Your task to perform on an android device: install app "Facebook Messenger" Image 0: 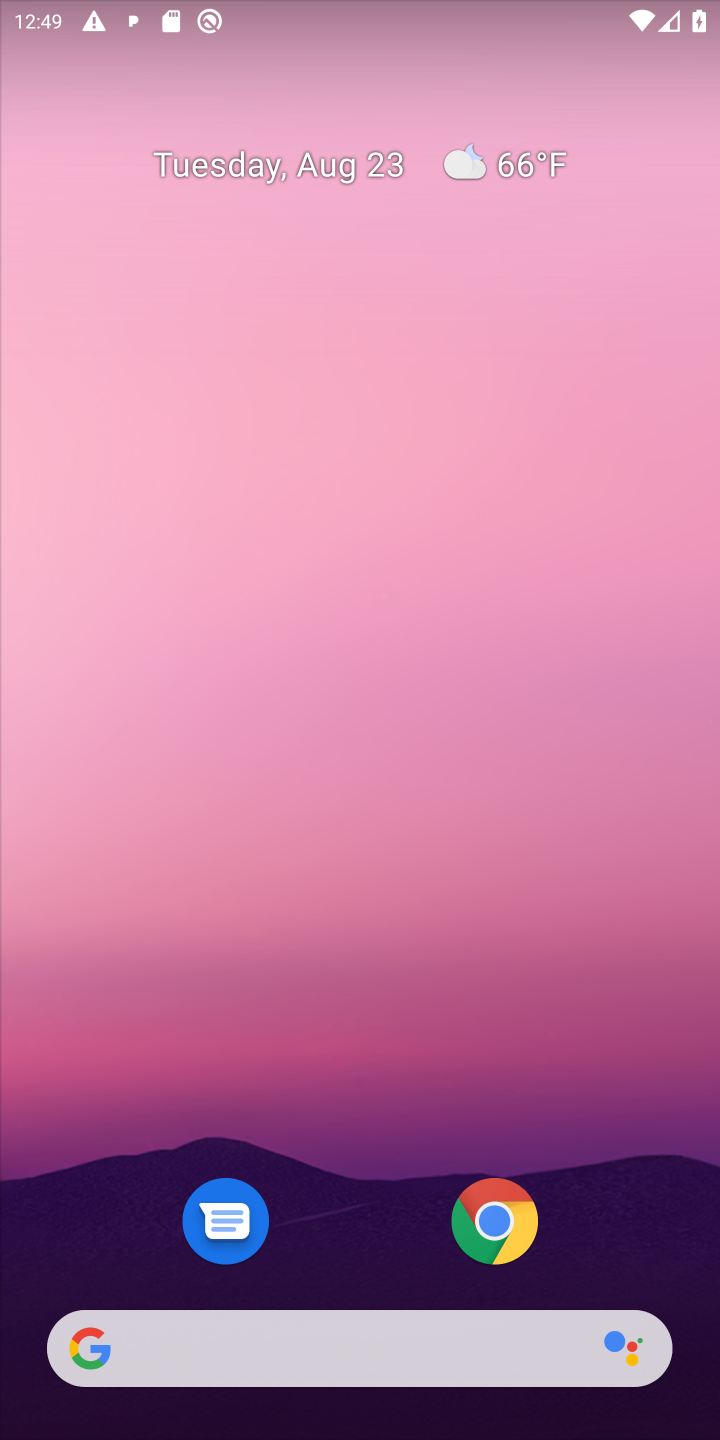
Step 0: drag from (409, 838) to (506, 36)
Your task to perform on an android device: install app "Facebook Messenger" Image 1: 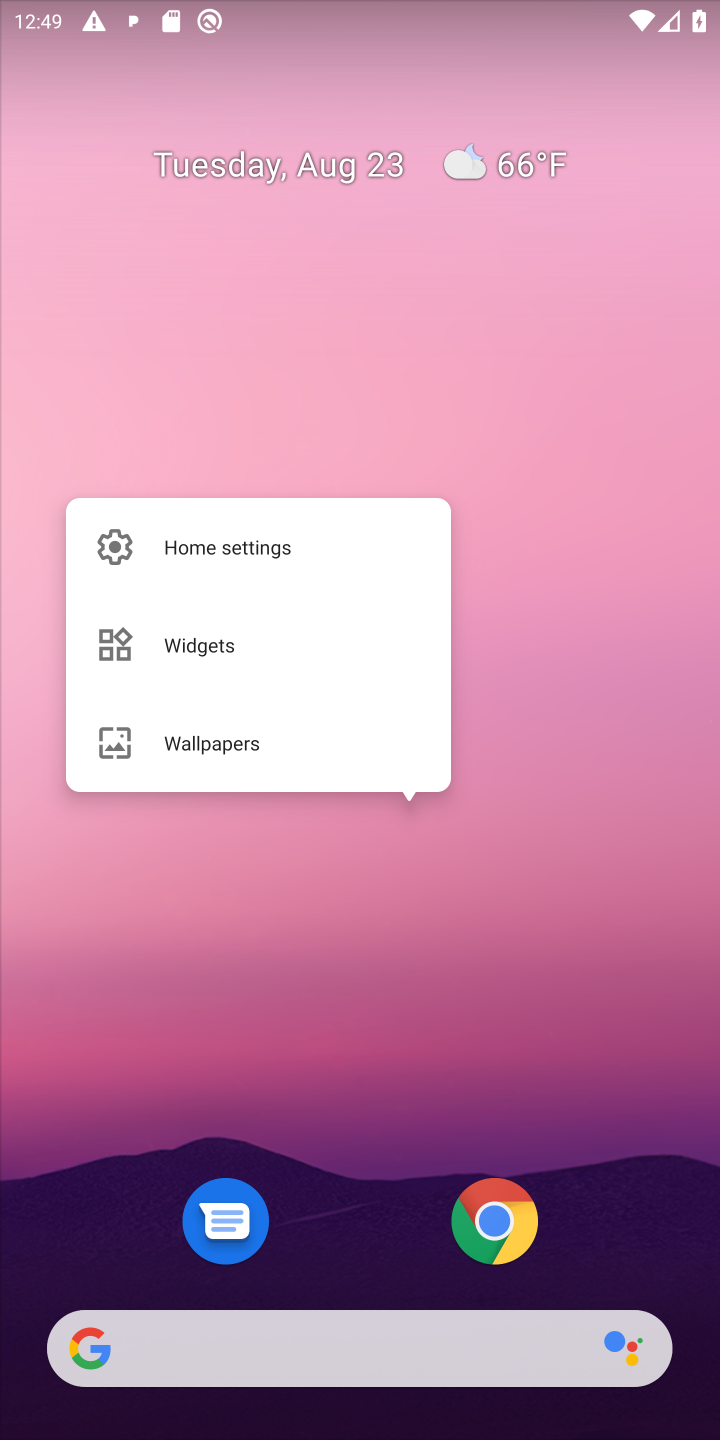
Step 1: click (528, 980)
Your task to perform on an android device: install app "Facebook Messenger" Image 2: 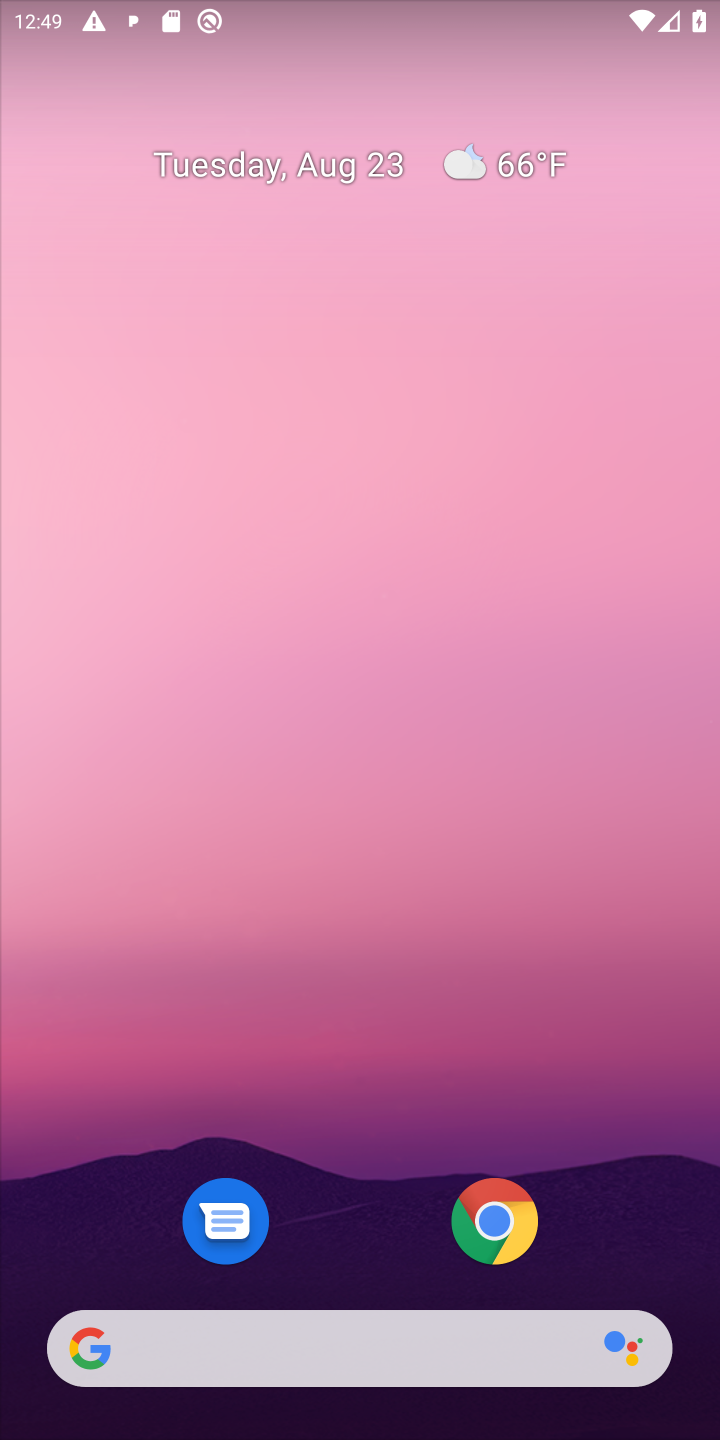
Step 2: drag from (393, 1136) to (426, 206)
Your task to perform on an android device: install app "Facebook Messenger" Image 3: 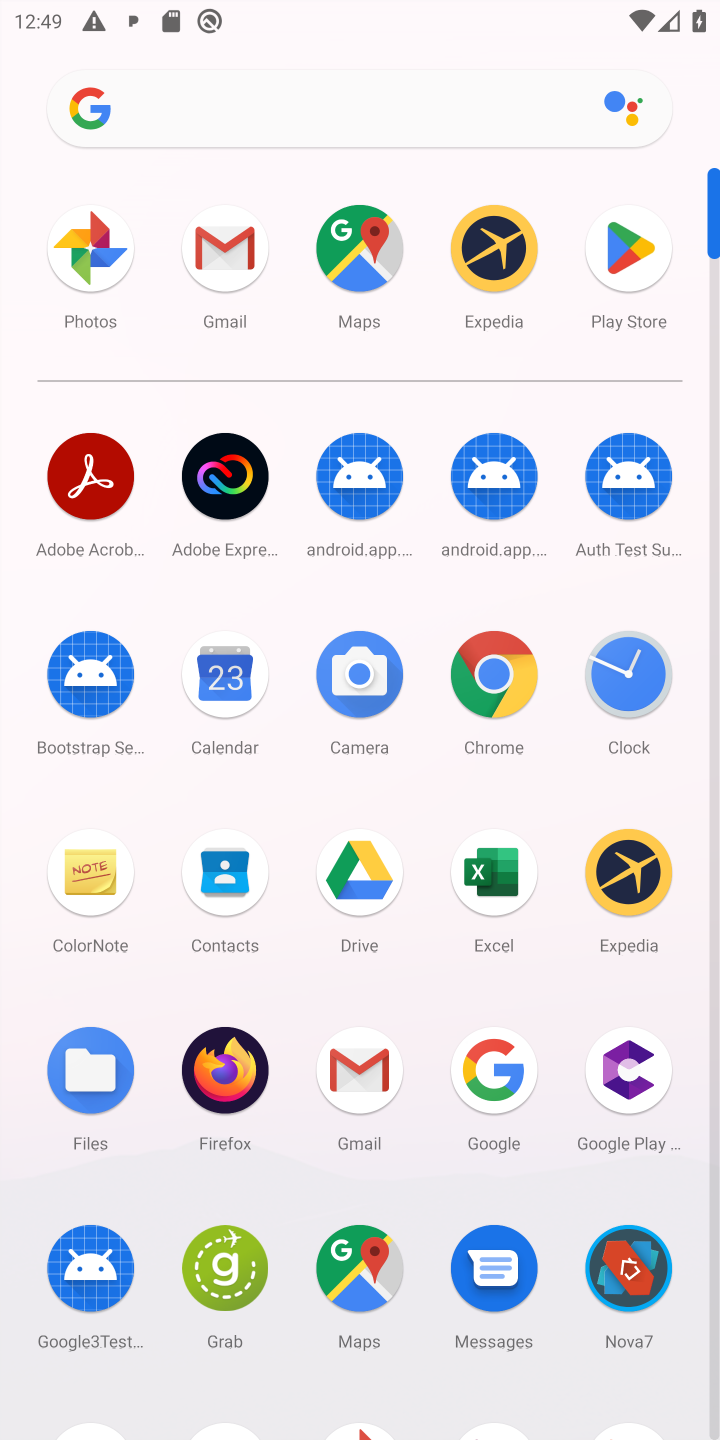
Step 3: click (621, 236)
Your task to perform on an android device: install app "Facebook Messenger" Image 4: 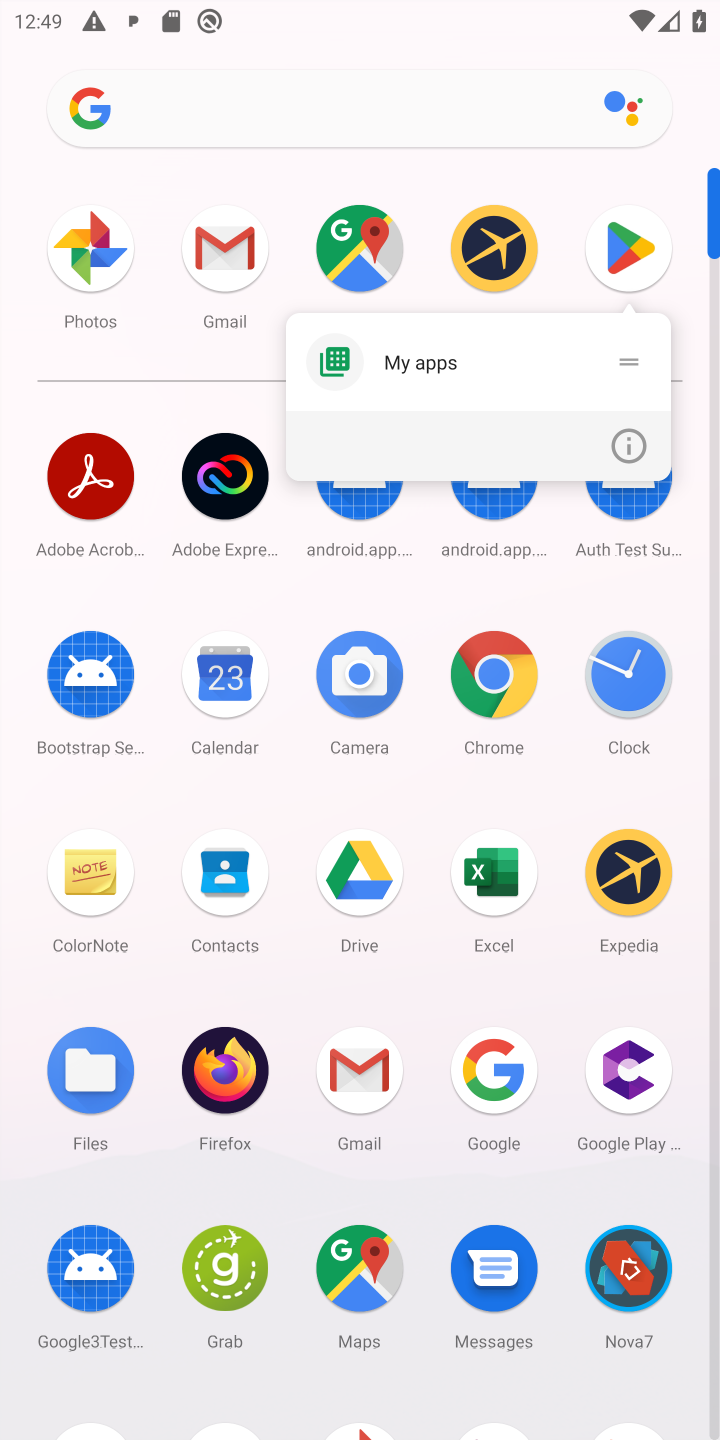
Step 4: click (644, 237)
Your task to perform on an android device: install app "Facebook Messenger" Image 5: 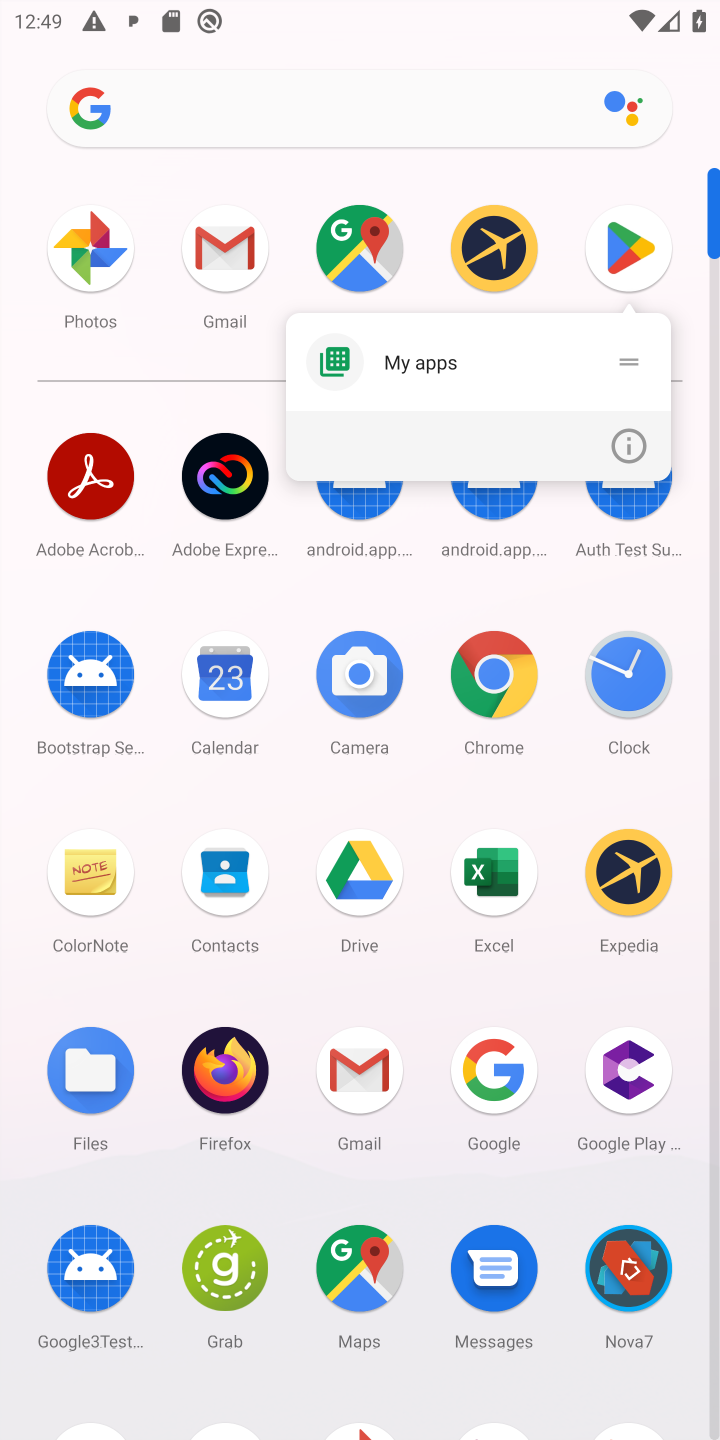
Step 5: click (635, 246)
Your task to perform on an android device: install app "Facebook Messenger" Image 6: 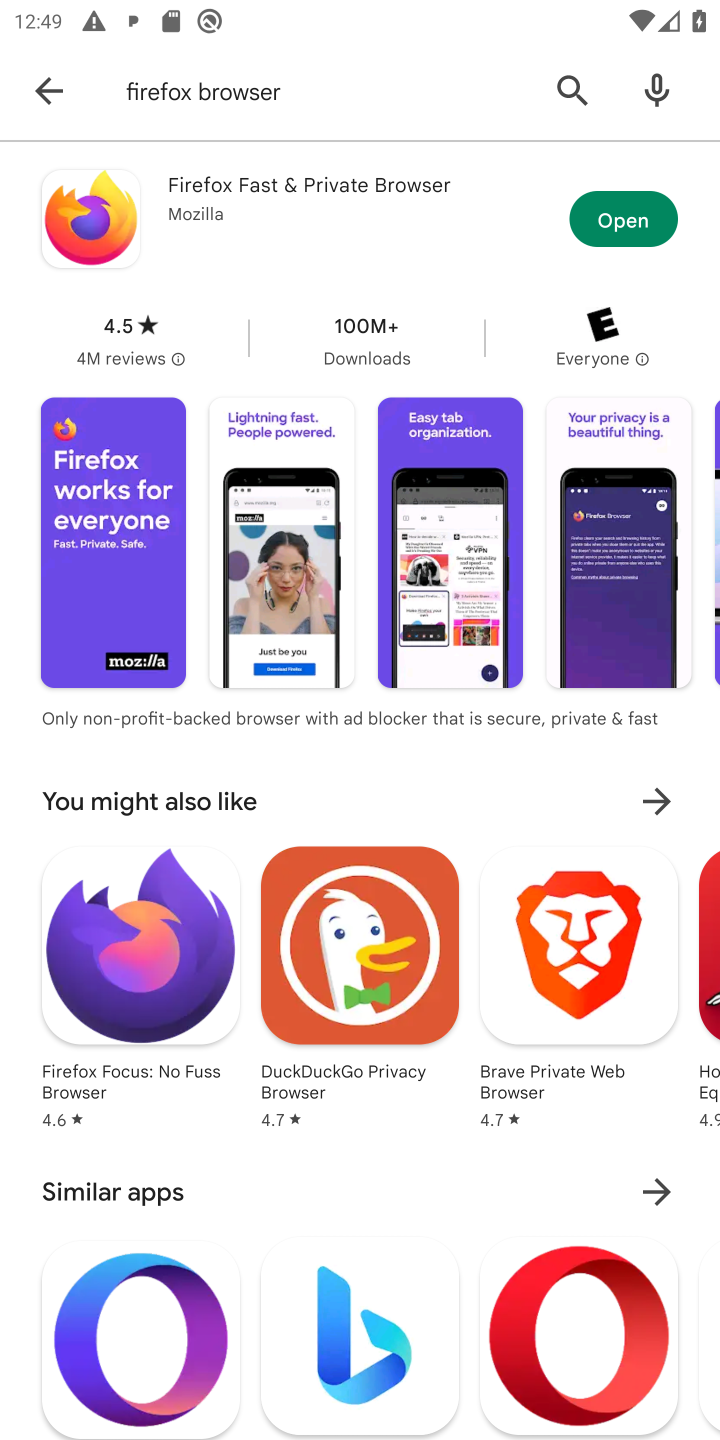
Step 6: click (556, 97)
Your task to perform on an android device: install app "Facebook Messenger" Image 7: 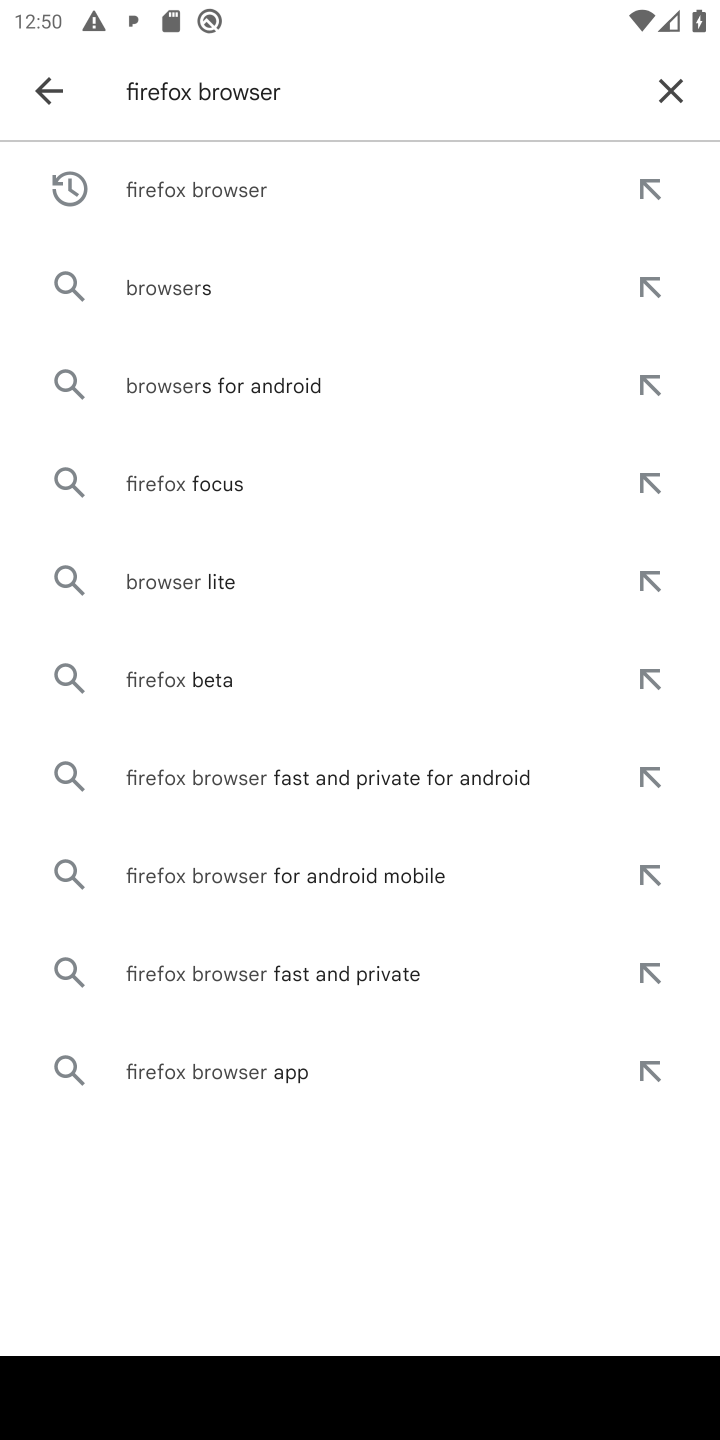
Step 7: click (679, 74)
Your task to perform on an android device: install app "Facebook Messenger" Image 8: 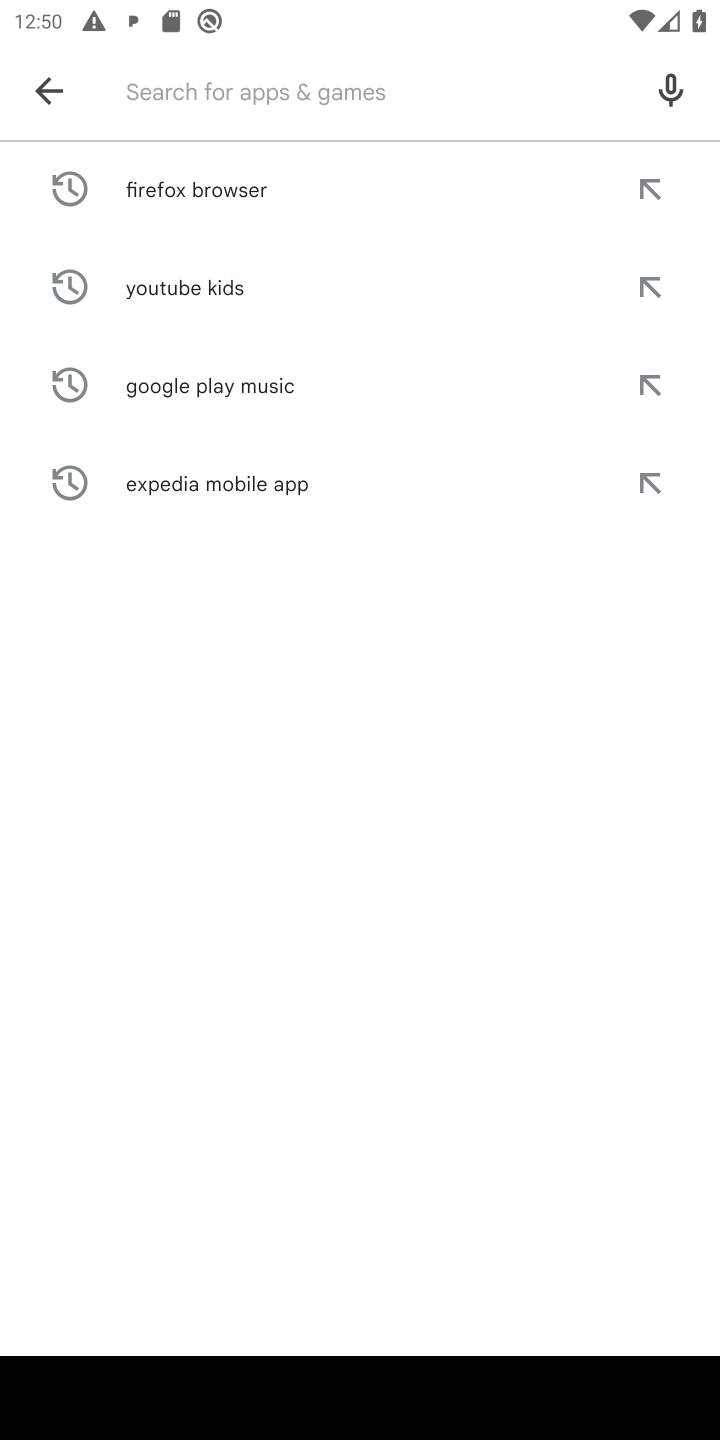
Step 8: click (259, 78)
Your task to perform on an android device: install app "Facebook Messenger" Image 9: 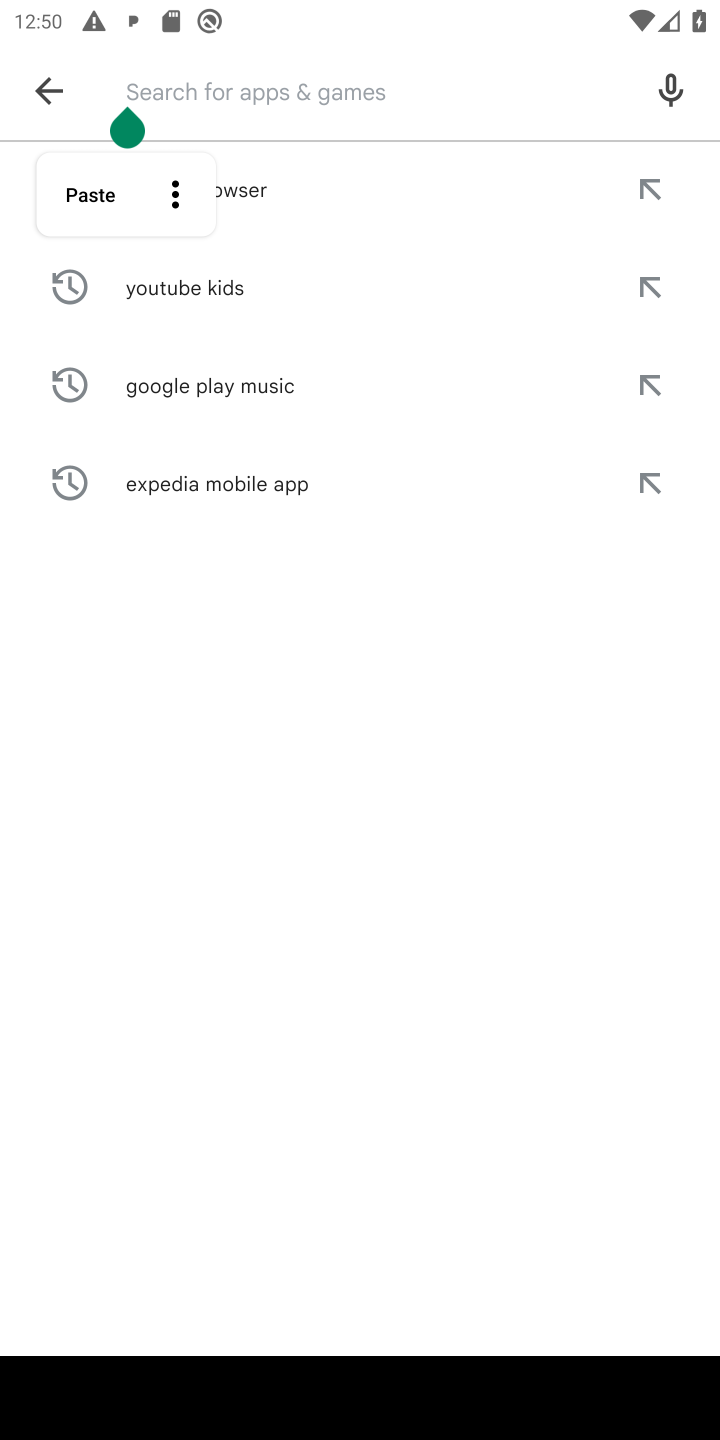
Step 9: type "Facebook Messenger"
Your task to perform on an android device: install app "Facebook Messenger" Image 10: 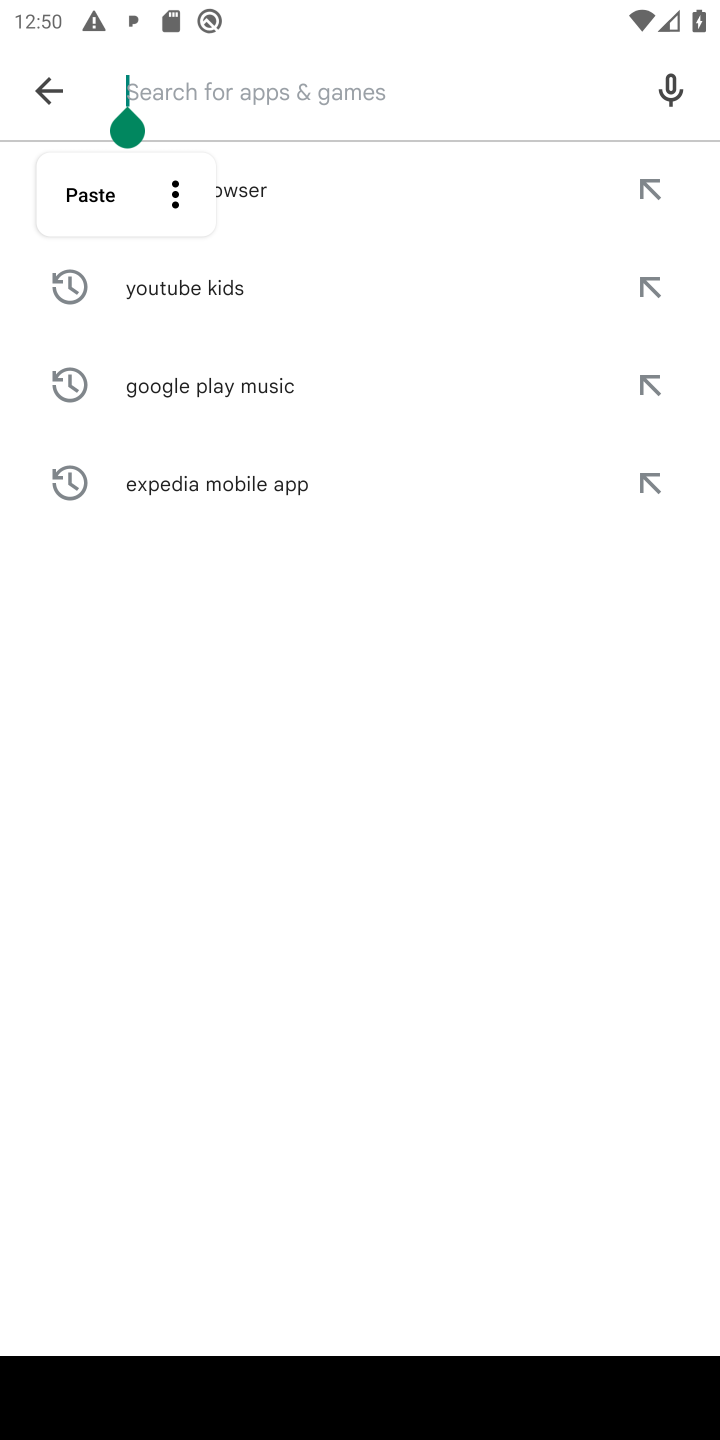
Step 10: click (416, 928)
Your task to perform on an android device: install app "Facebook Messenger" Image 11: 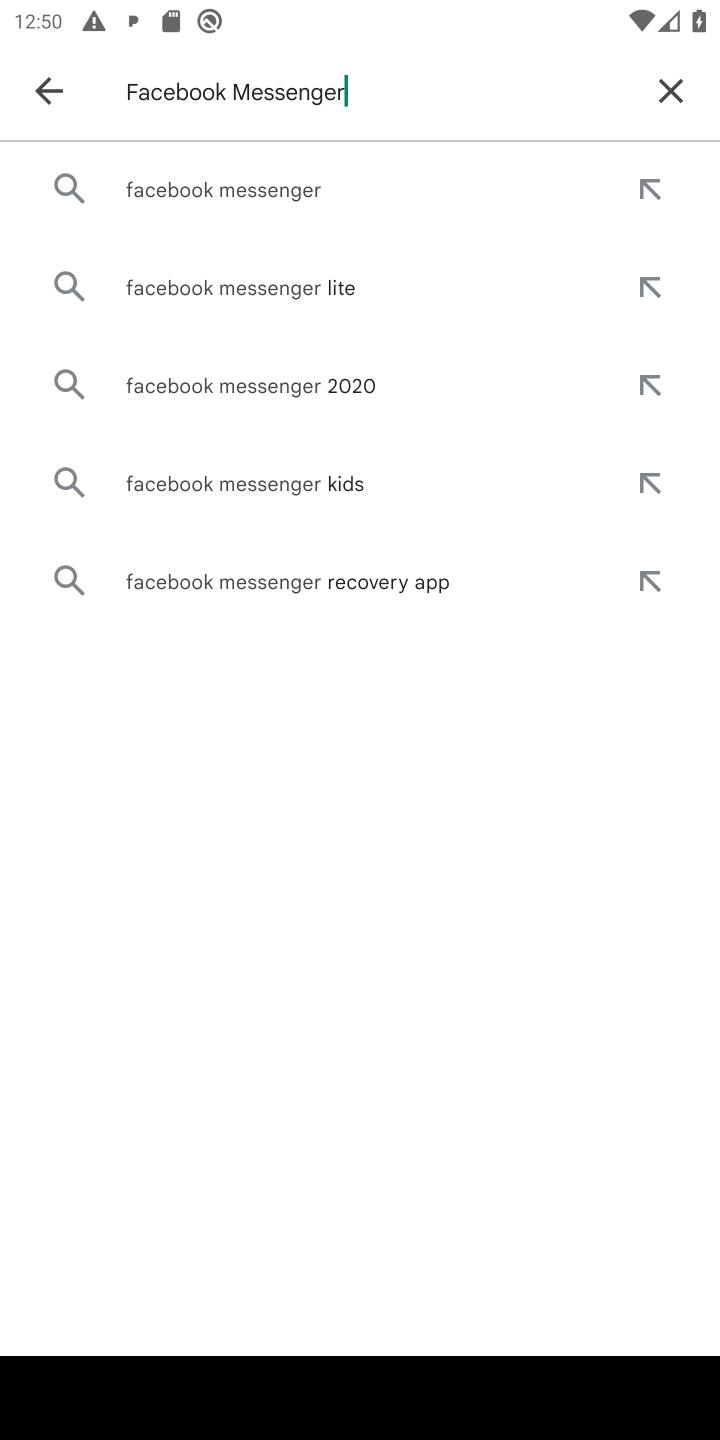
Step 11: click (225, 175)
Your task to perform on an android device: install app "Facebook Messenger" Image 12: 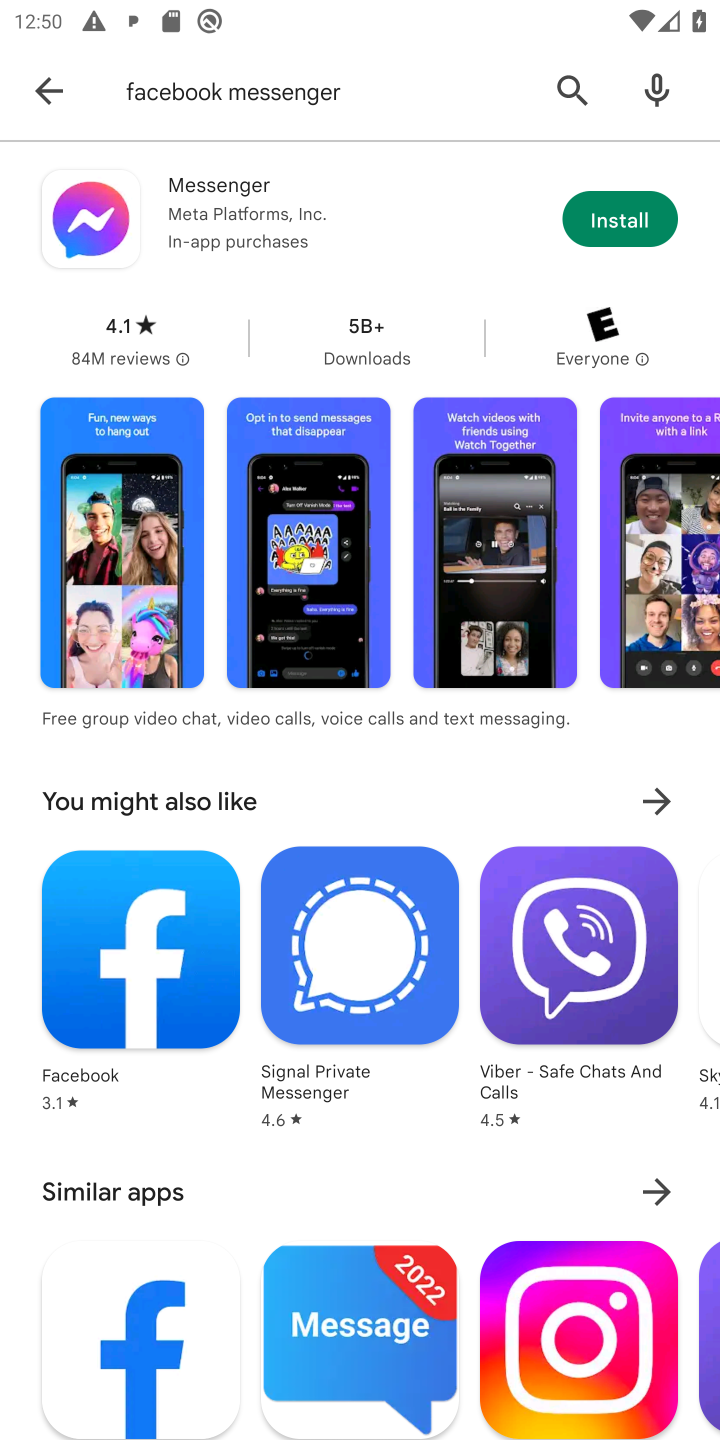
Step 12: click (602, 216)
Your task to perform on an android device: install app "Facebook Messenger" Image 13: 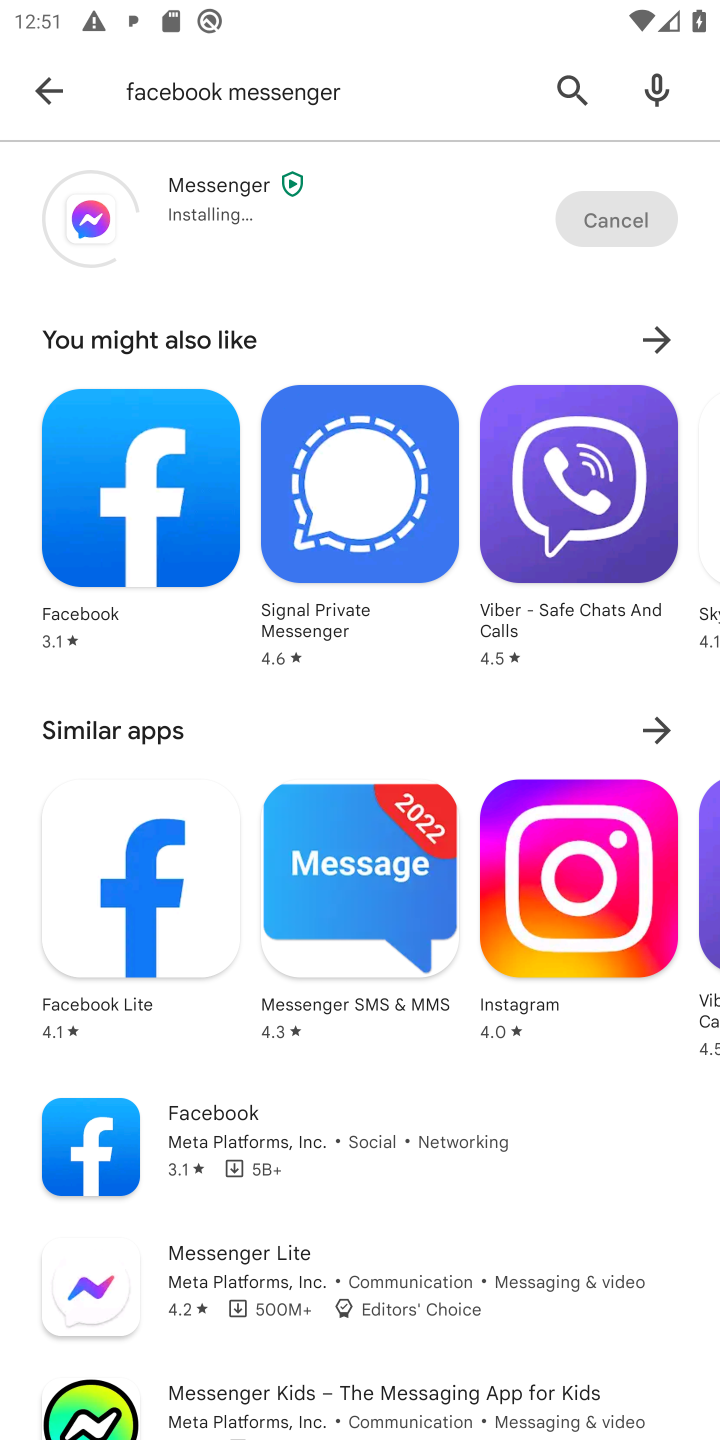
Step 13: press back button
Your task to perform on an android device: install app "Facebook Messenger" Image 14: 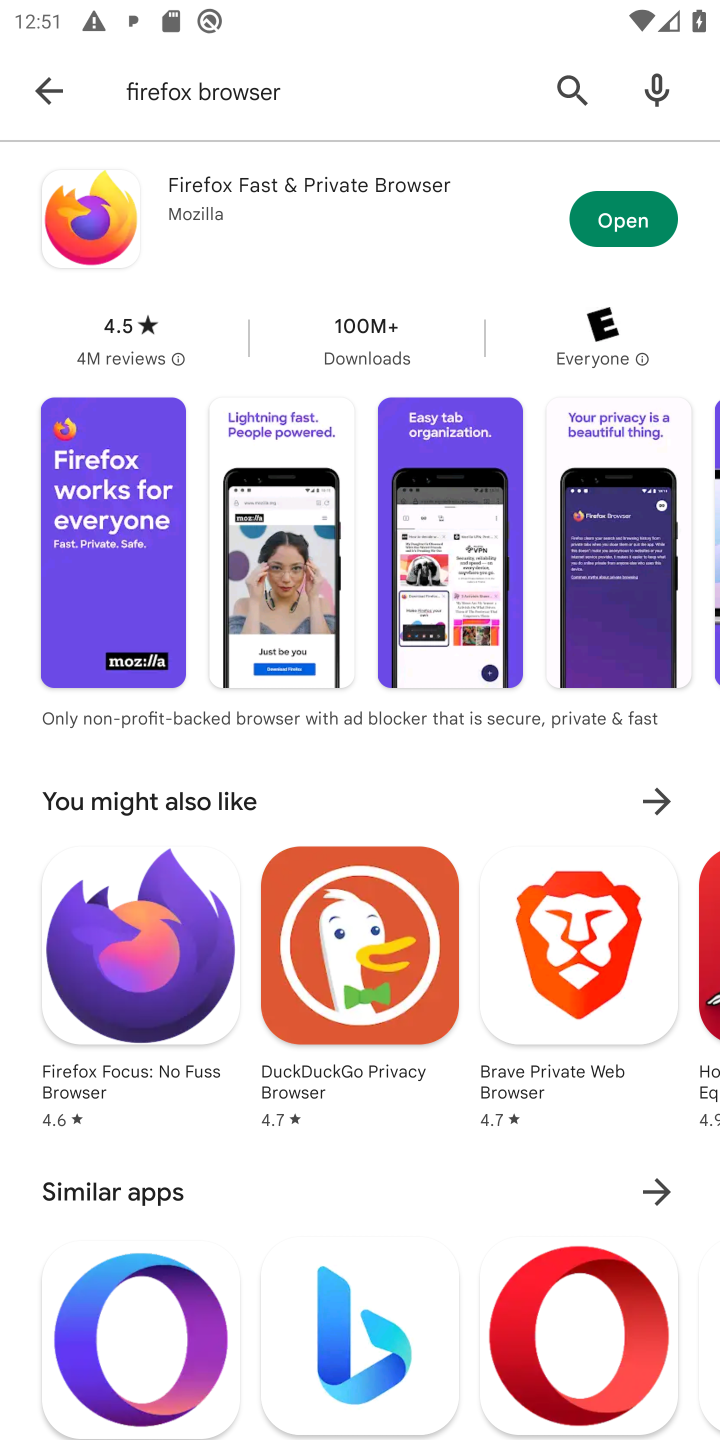
Step 14: click (567, 89)
Your task to perform on an android device: install app "Facebook Messenger" Image 15: 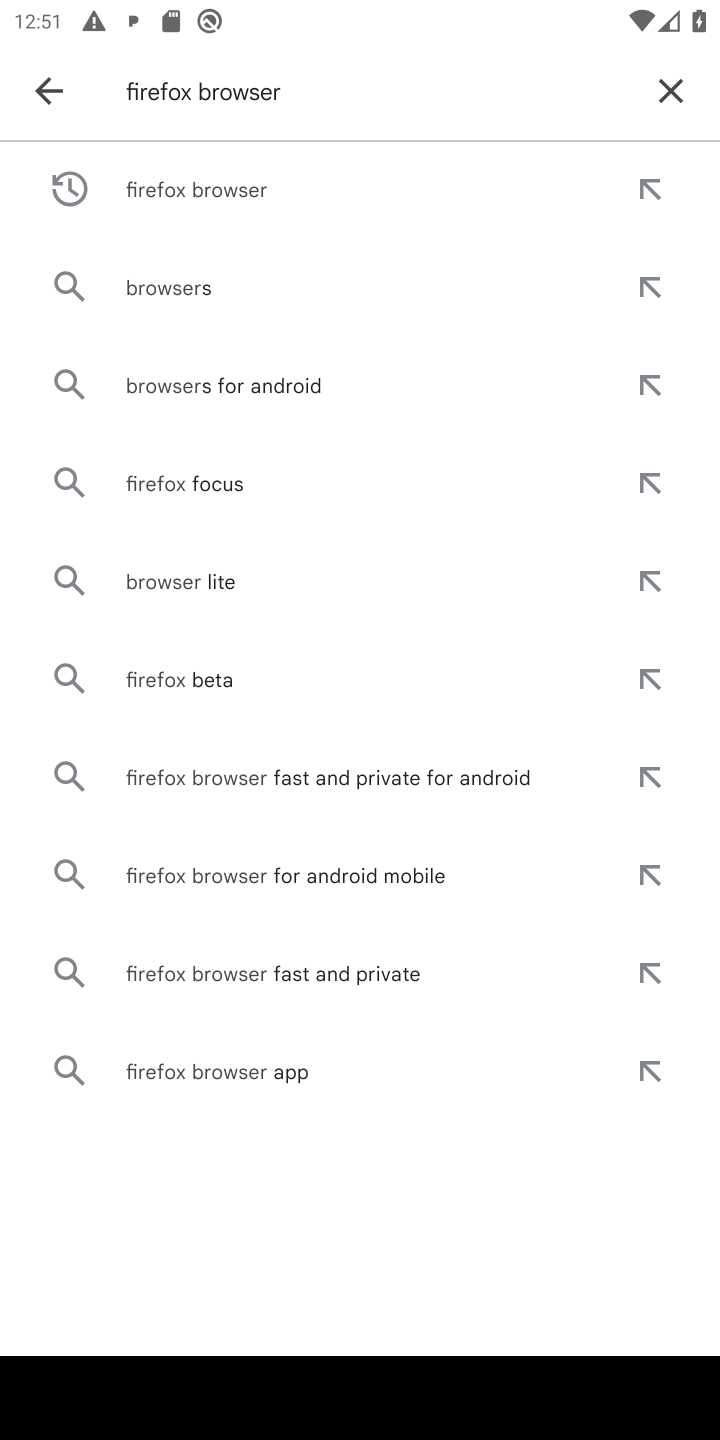
Step 15: click (676, 85)
Your task to perform on an android device: install app "Facebook Messenger" Image 16: 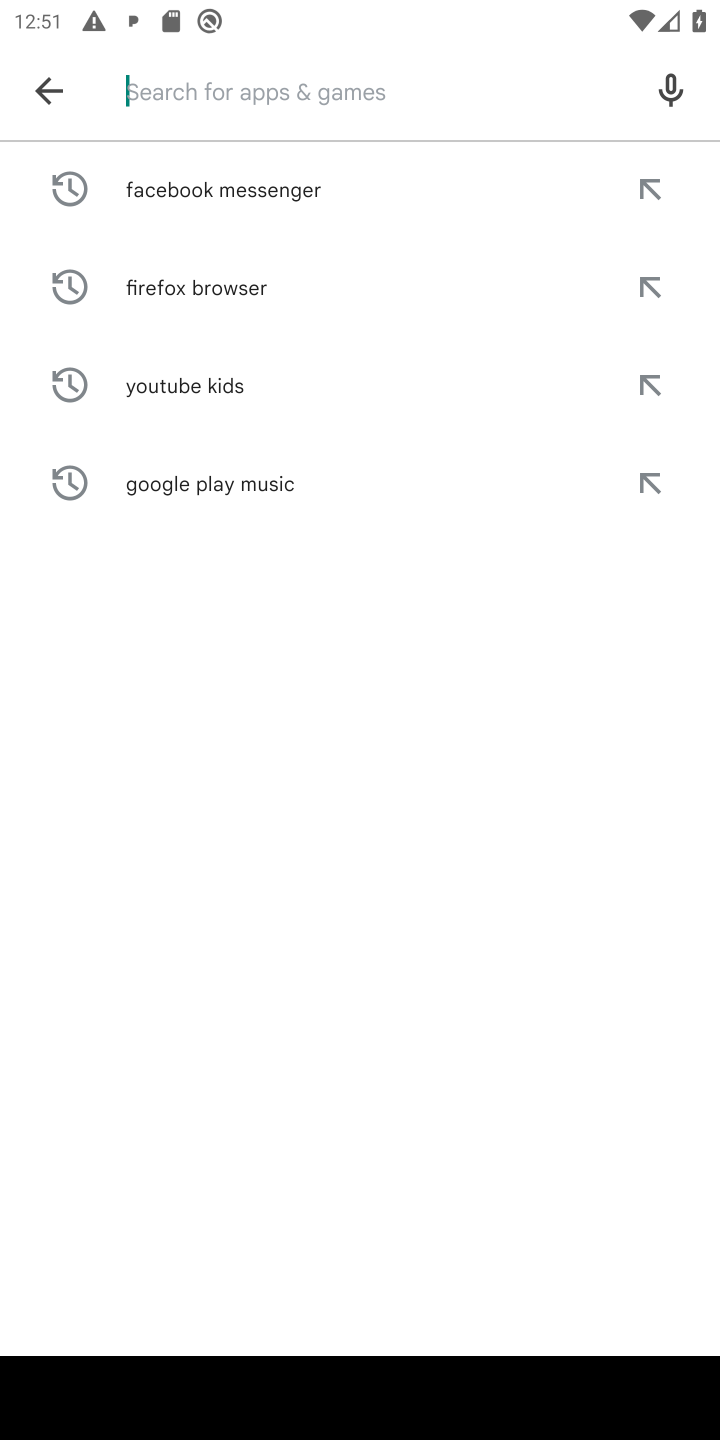
Step 16: click (219, 193)
Your task to perform on an android device: install app "Facebook Messenger" Image 17: 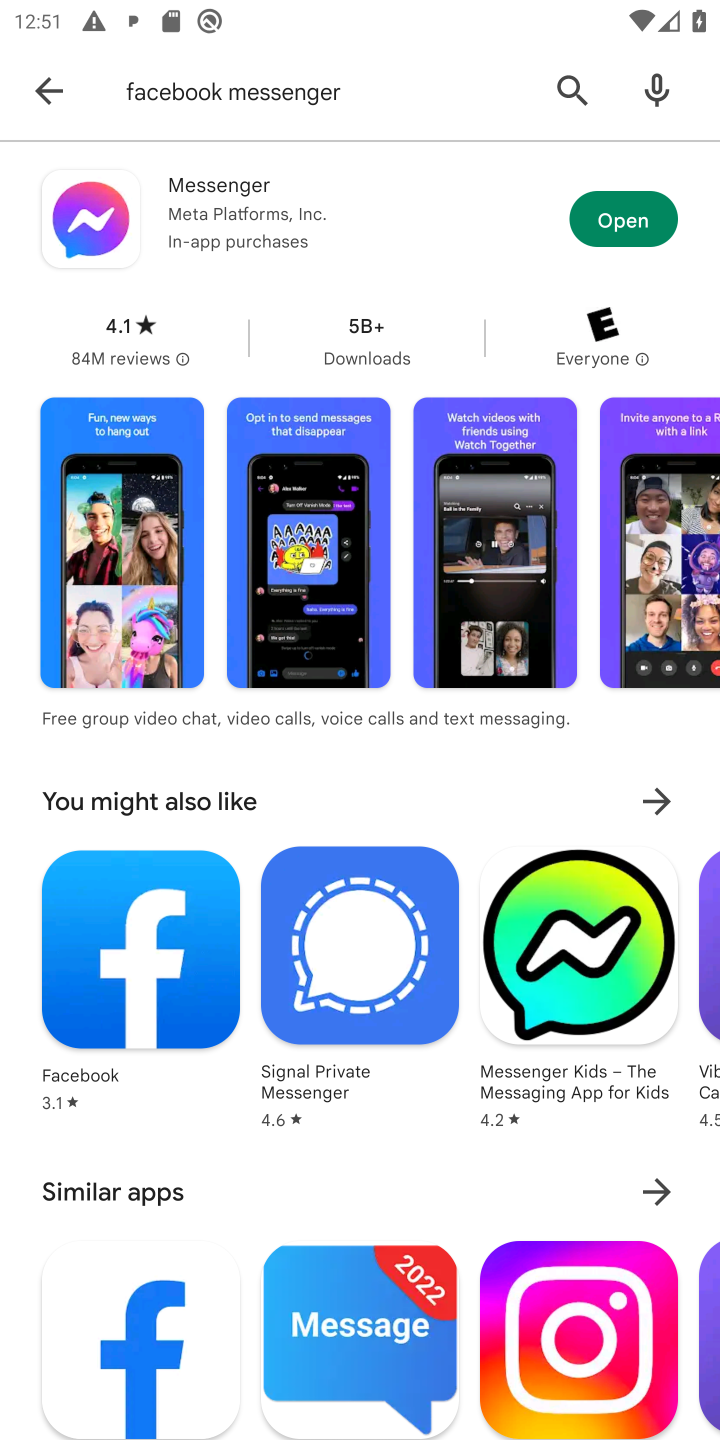
Step 17: task complete